Your task to perform on an android device: toggle sleep mode Image 0: 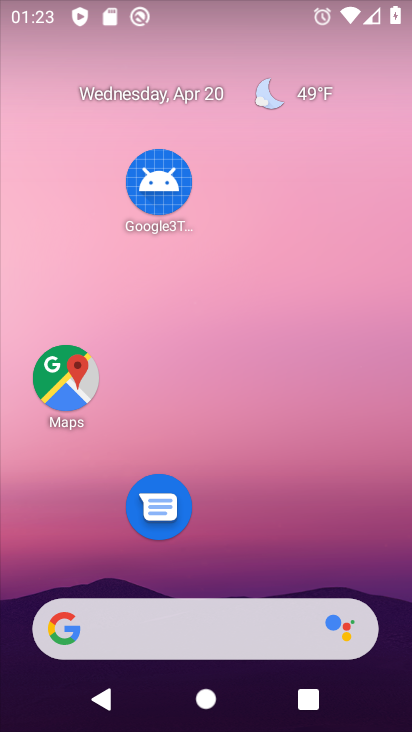
Step 0: drag from (245, 555) to (372, 0)
Your task to perform on an android device: toggle sleep mode Image 1: 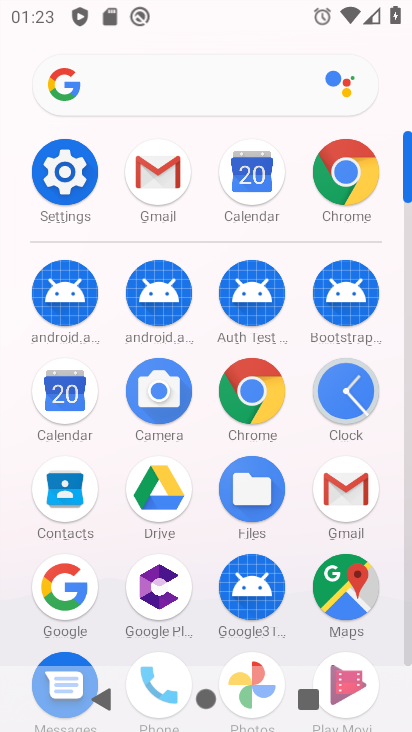
Step 1: click (65, 180)
Your task to perform on an android device: toggle sleep mode Image 2: 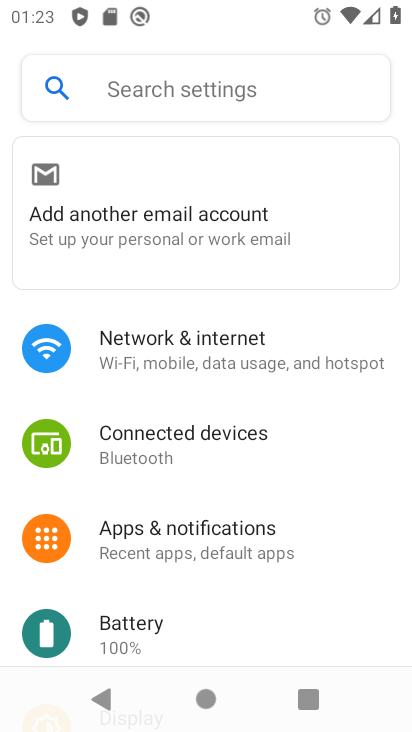
Step 2: drag from (200, 574) to (248, 210)
Your task to perform on an android device: toggle sleep mode Image 3: 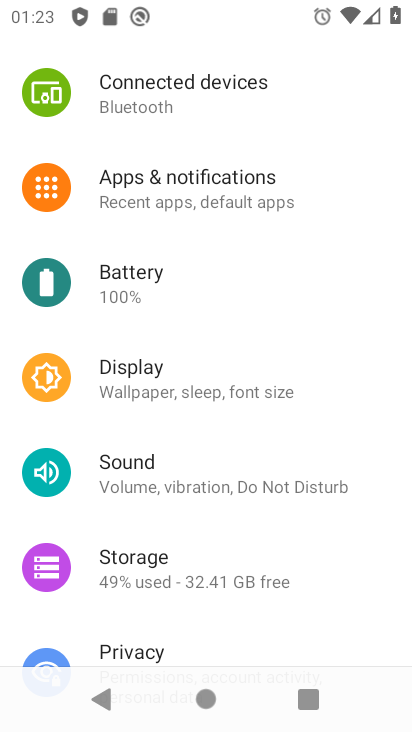
Step 3: click (127, 364)
Your task to perform on an android device: toggle sleep mode Image 4: 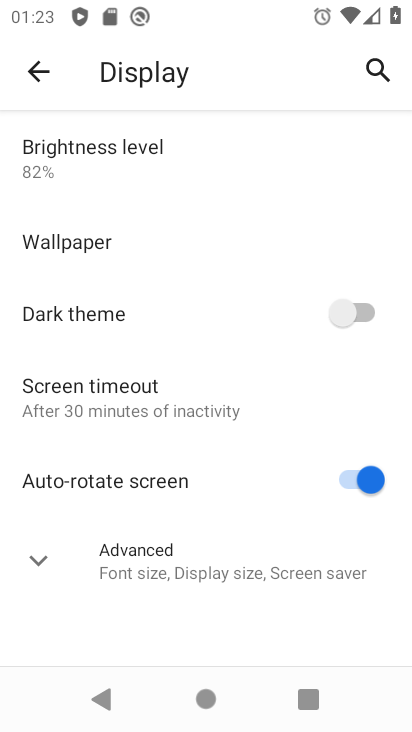
Step 4: task complete